Your task to perform on an android device: Go to Wikipedia Image 0: 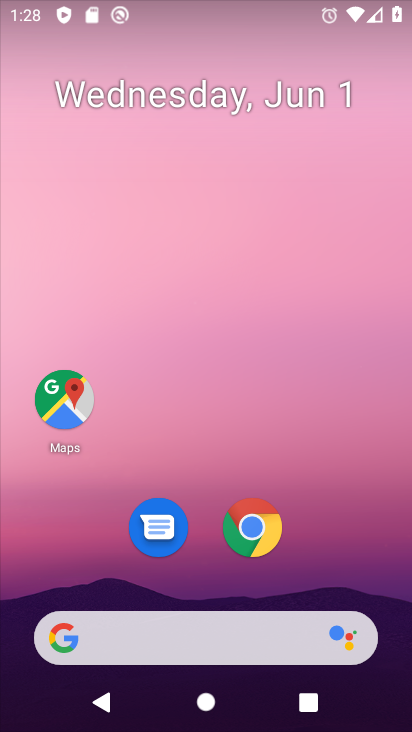
Step 0: drag from (364, 586) to (185, 211)
Your task to perform on an android device: Go to Wikipedia Image 1: 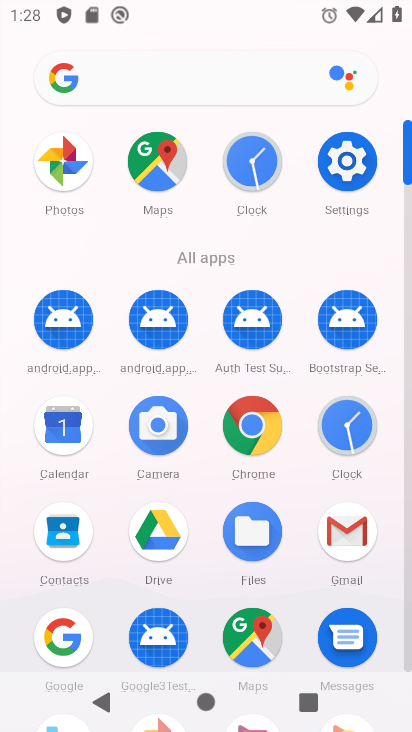
Step 1: click (255, 438)
Your task to perform on an android device: Go to Wikipedia Image 2: 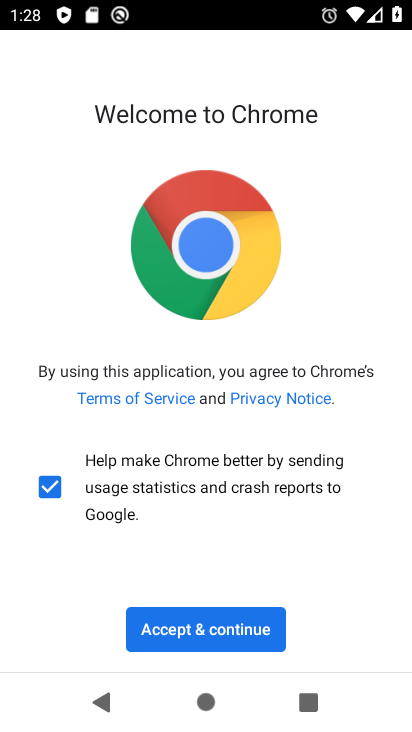
Step 2: click (231, 628)
Your task to perform on an android device: Go to Wikipedia Image 3: 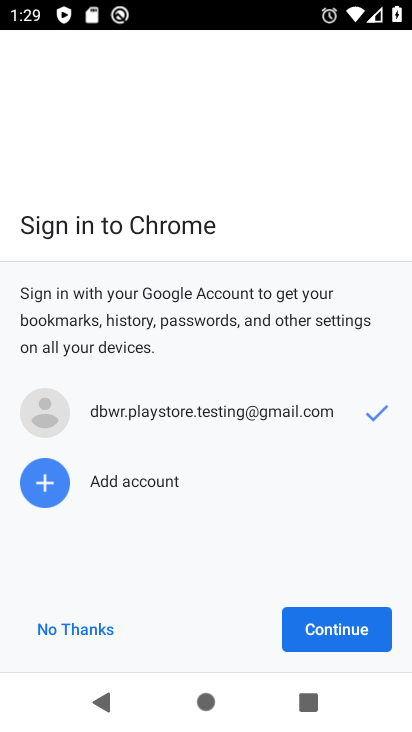
Step 3: click (329, 626)
Your task to perform on an android device: Go to Wikipedia Image 4: 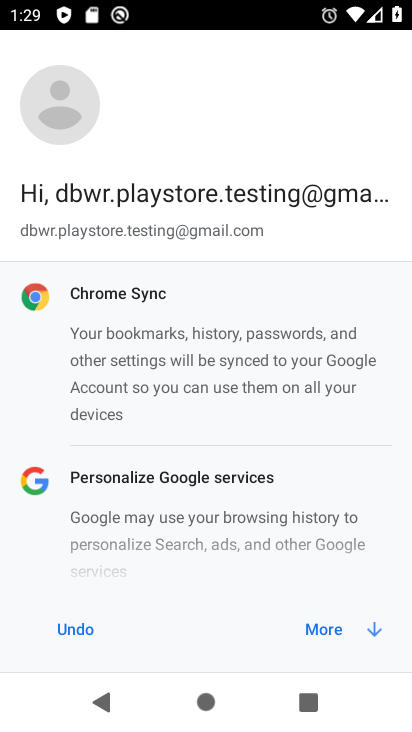
Step 4: click (338, 642)
Your task to perform on an android device: Go to Wikipedia Image 5: 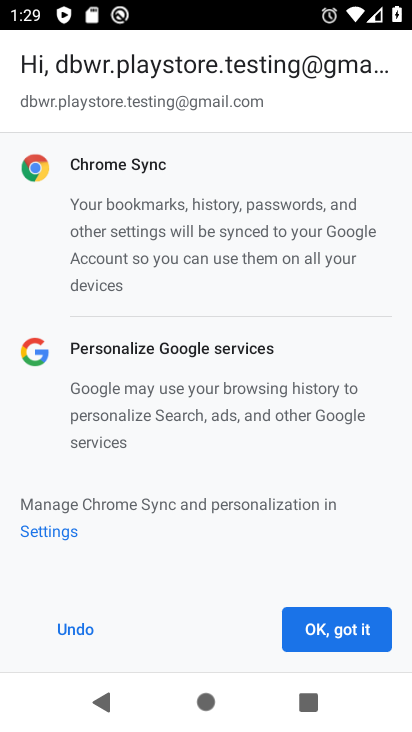
Step 5: click (358, 644)
Your task to perform on an android device: Go to Wikipedia Image 6: 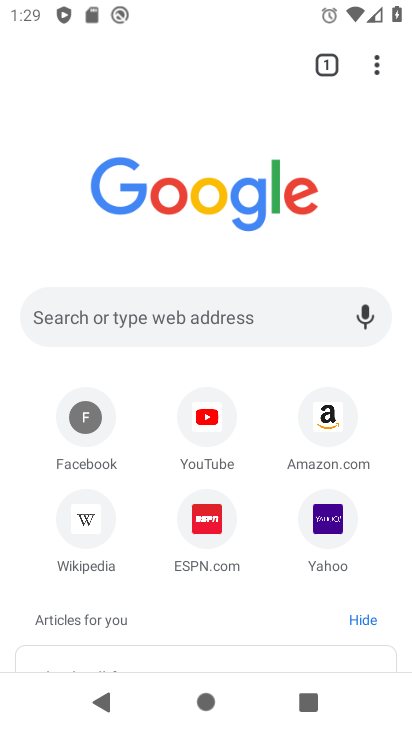
Step 6: click (87, 524)
Your task to perform on an android device: Go to Wikipedia Image 7: 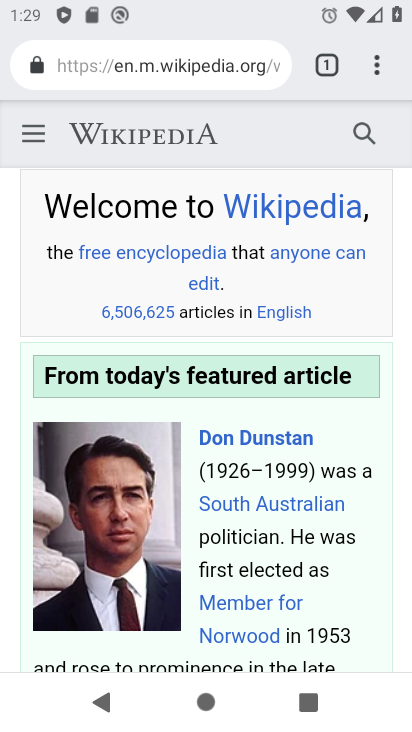
Step 7: task complete